Your task to perform on an android device: What's the weather? Image 0: 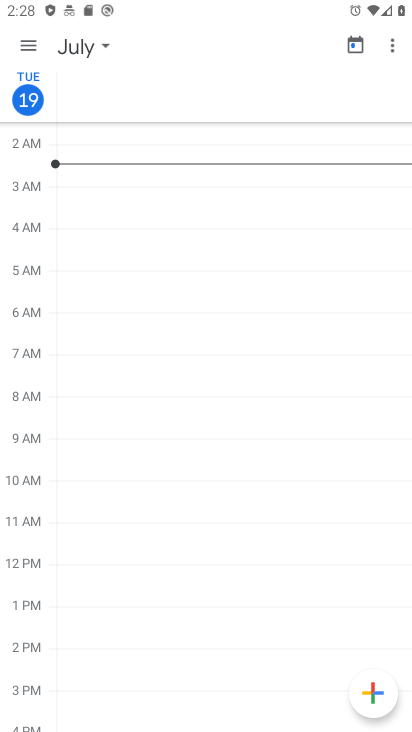
Step 0: press back button
Your task to perform on an android device: What's the weather? Image 1: 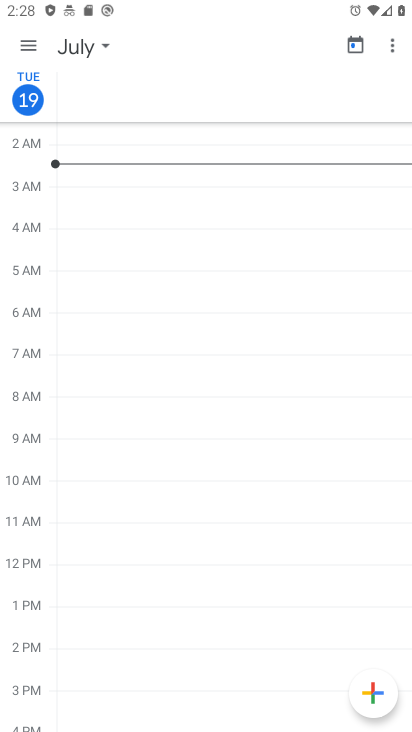
Step 1: press back button
Your task to perform on an android device: What's the weather? Image 2: 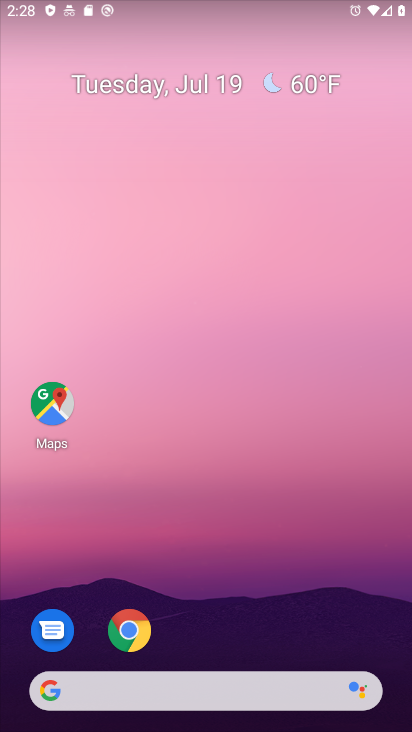
Step 2: drag from (179, 512) to (154, 14)
Your task to perform on an android device: What's the weather? Image 3: 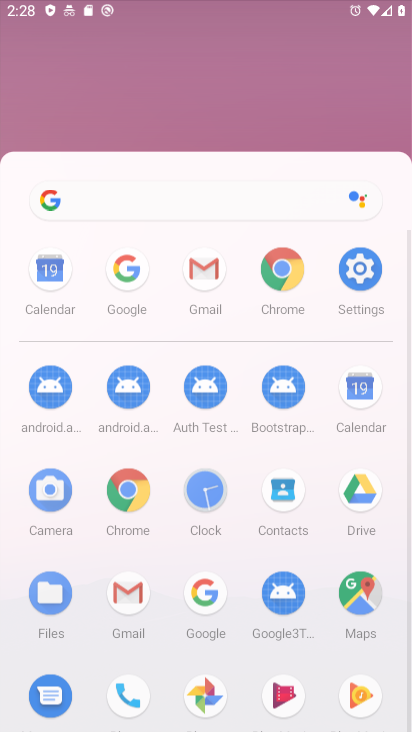
Step 3: drag from (180, 382) to (204, 99)
Your task to perform on an android device: What's the weather? Image 4: 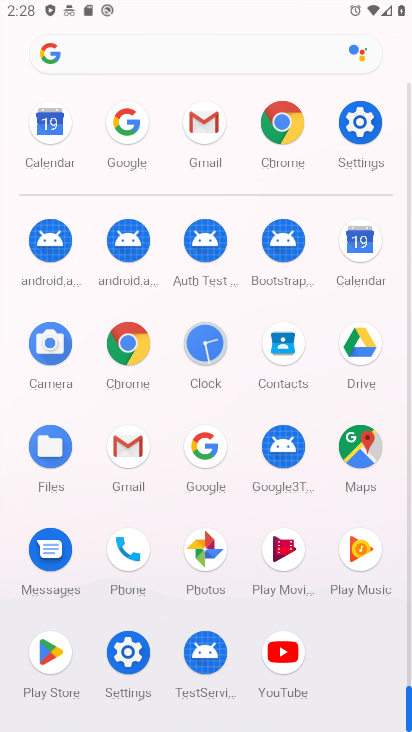
Step 4: click (286, 124)
Your task to perform on an android device: What's the weather? Image 5: 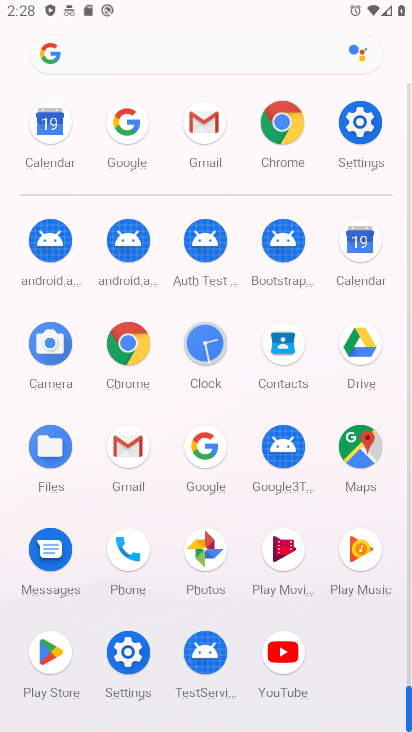
Step 5: click (285, 123)
Your task to perform on an android device: What's the weather? Image 6: 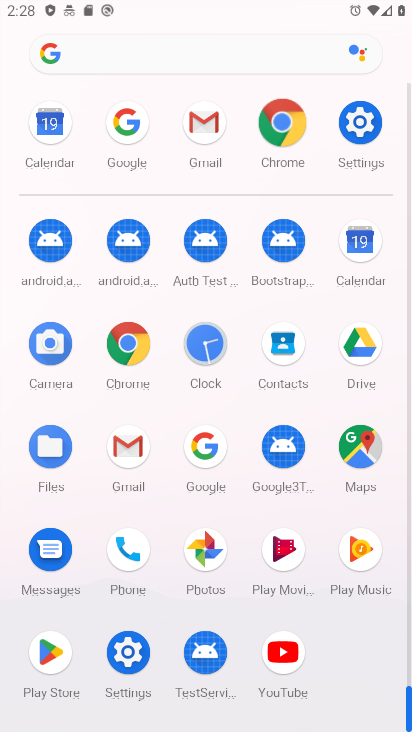
Step 6: click (269, 141)
Your task to perform on an android device: What's the weather? Image 7: 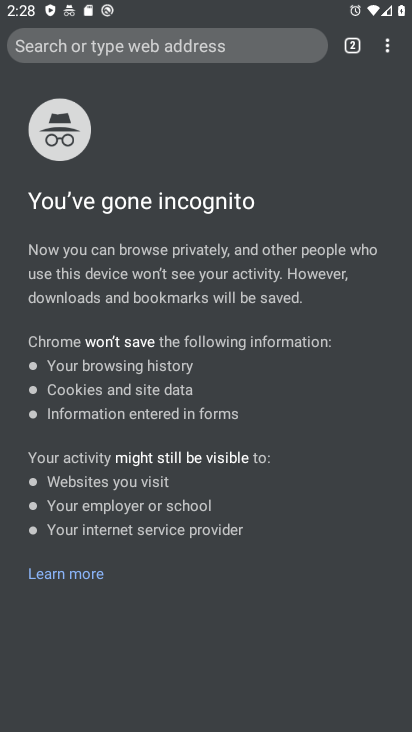
Step 7: drag from (385, 46) to (230, 87)
Your task to perform on an android device: What's the weather? Image 8: 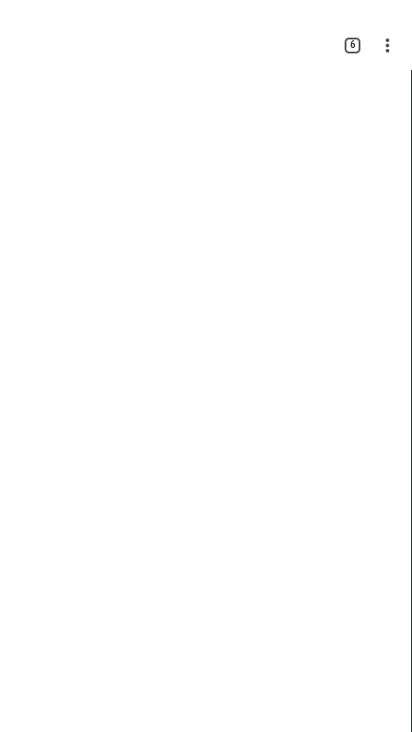
Step 8: click (243, 87)
Your task to perform on an android device: What's the weather? Image 9: 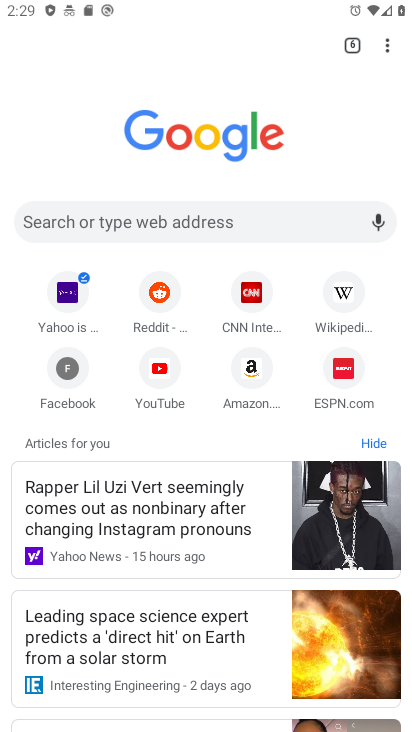
Step 9: click (46, 221)
Your task to perform on an android device: What's the weather? Image 10: 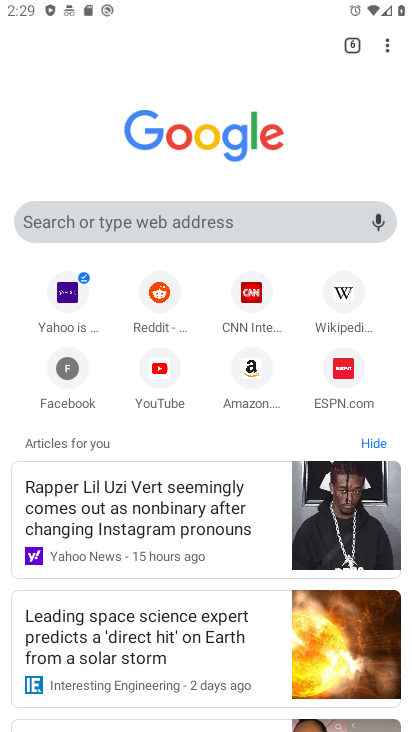
Step 10: click (50, 217)
Your task to perform on an android device: What's the weather? Image 11: 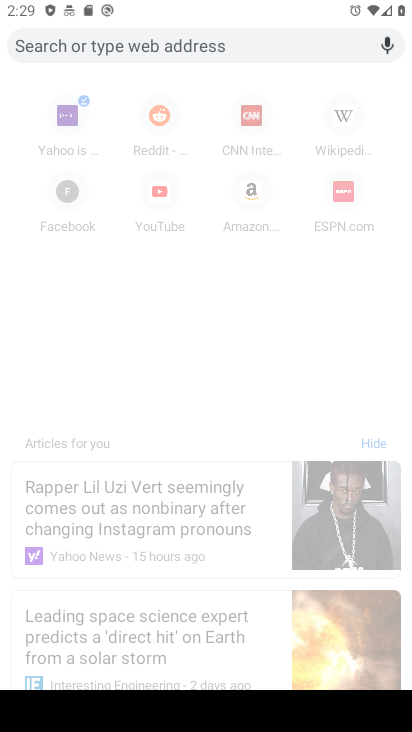
Step 11: type "weather"
Your task to perform on an android device: What's the weather? Image 12: 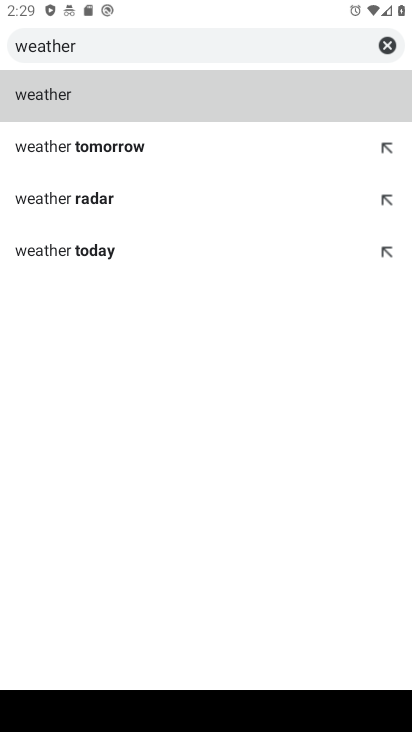
Step 12: click (86, 92)
Your task to perform on an android device: What's the weather? Image 13: 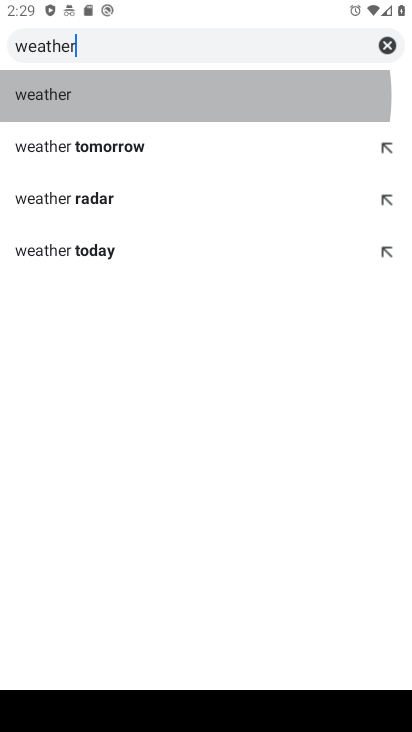
Step 13: click (85, 92)
Your task to perform on an android device: What's the weather? Image 14: 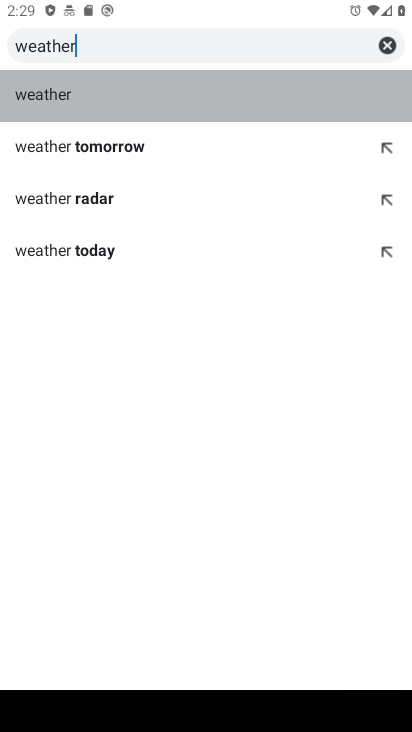
Step 14: click (83, 104)
Your task to perform on an android device: What's the weather? Image 15: 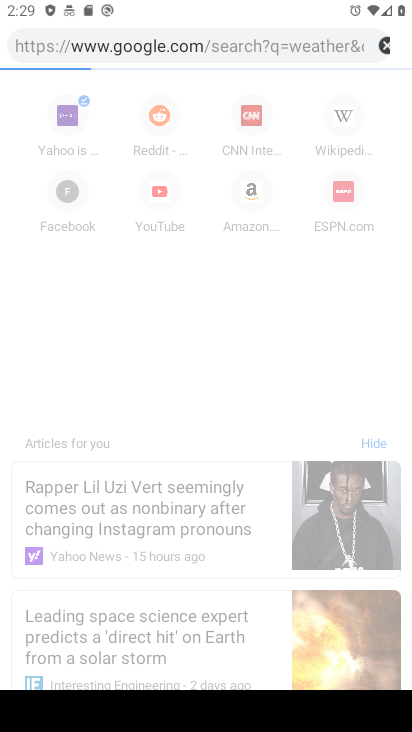
Step 15: click (83, 111)
Your task to perform on an android device: What's the weather? Image 16: 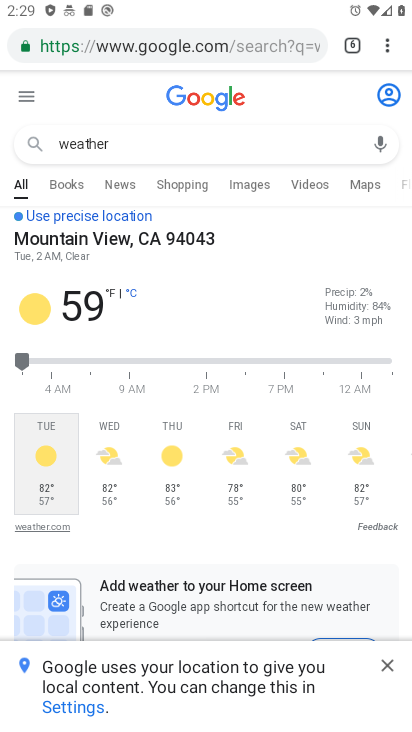
Step 16: task complete